Your task to perform on an android device: toggle location history Image 0: 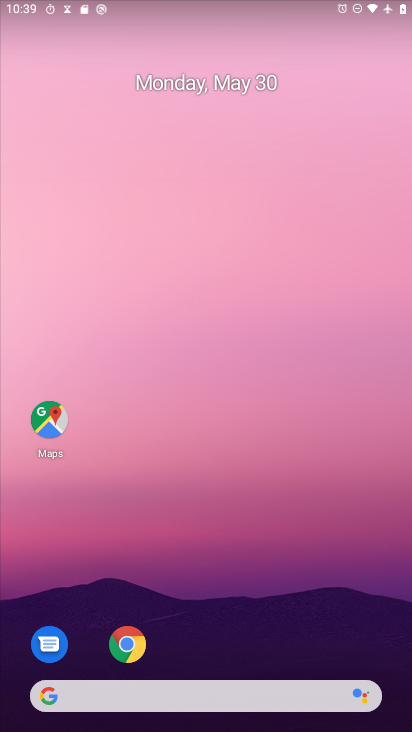
Step 0: drag from (231, 632) to (254, 49)
Your task to perform on an android device: toggle location history Image 1: 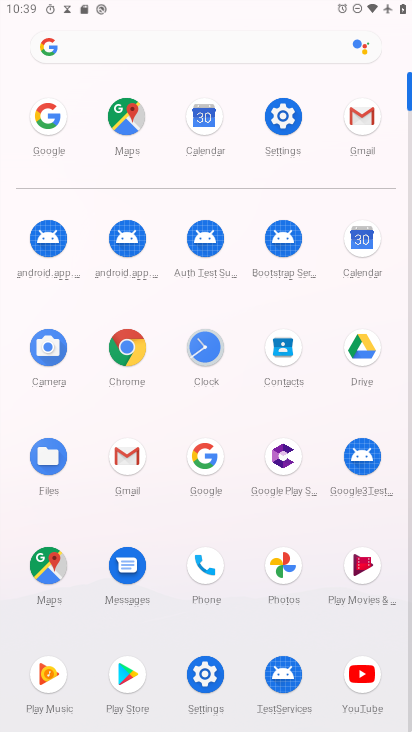
Step 1: click (283, 114)
Your task to perform on an android device: toggle location history Image 2: 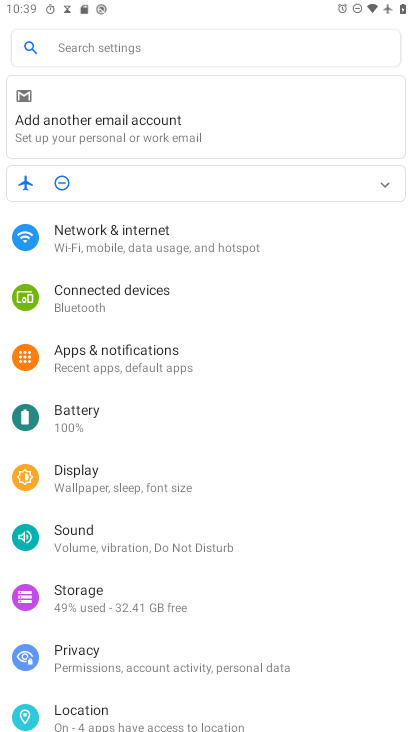
Step 2: click (110, 708)
Your task to perform on an android device: toggle location history Image 3: 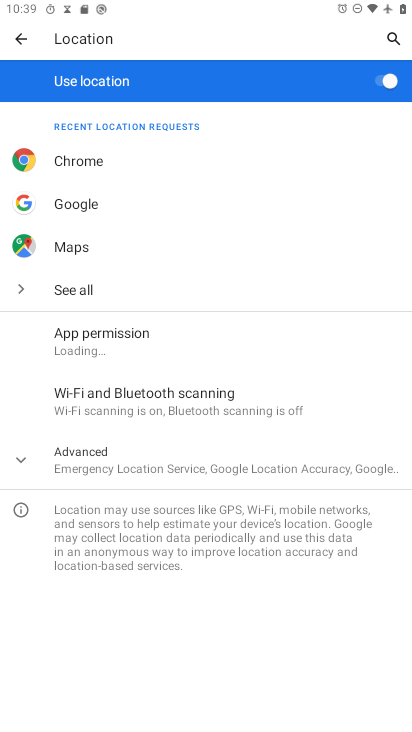
Step 3: click (88, 464)
Your task to perform on an android device: toggle location history Image 4: 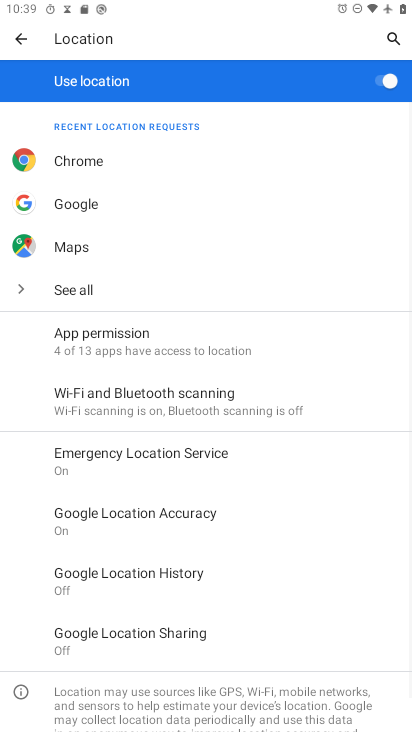
Step 4: click (155, 577)
Your task to perform on an android device: toggle location history Image 5: 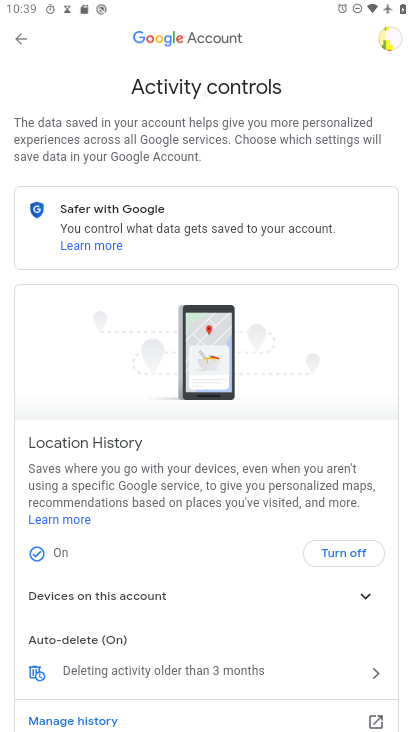
Step 5: drag from (316, 579) to (297, 139)
Your task to perform on an android device: toggle location history Image 6: 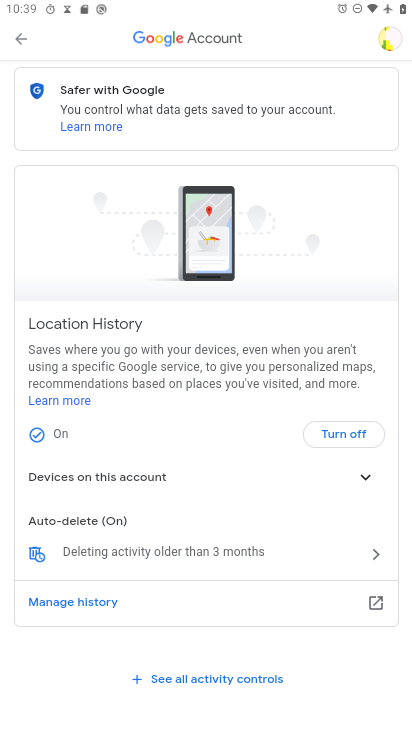
Step 6: click (338, 435)
Your task to perform on an android device: toggle location history Image 7: 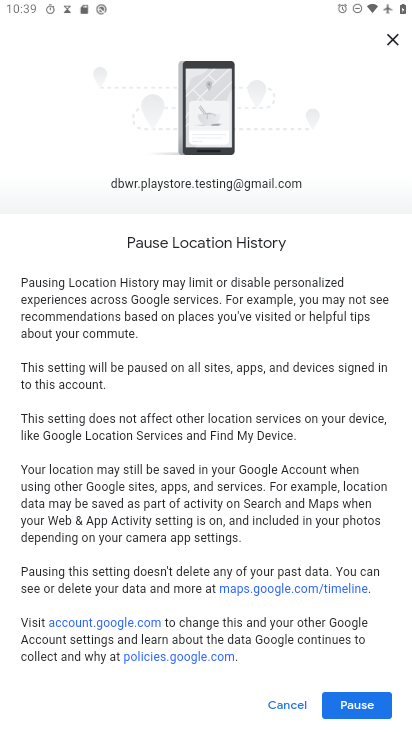
Step 7: click (353, 706)
Your task to perform on an android device: toggle location history Image 8: 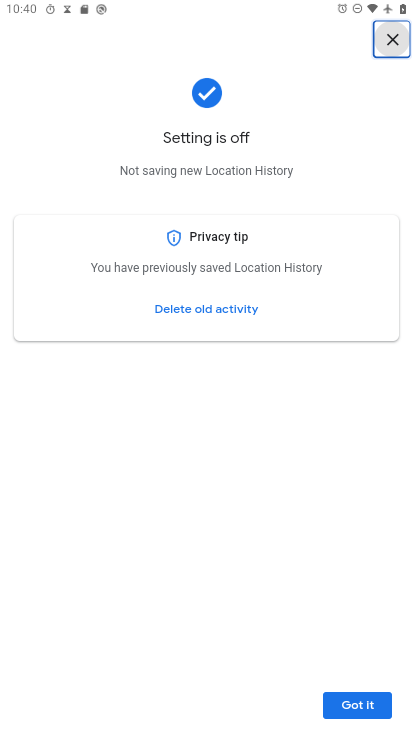
Step 8: task complete